Your task to perform on an android device: Go to Android settings Image 0: 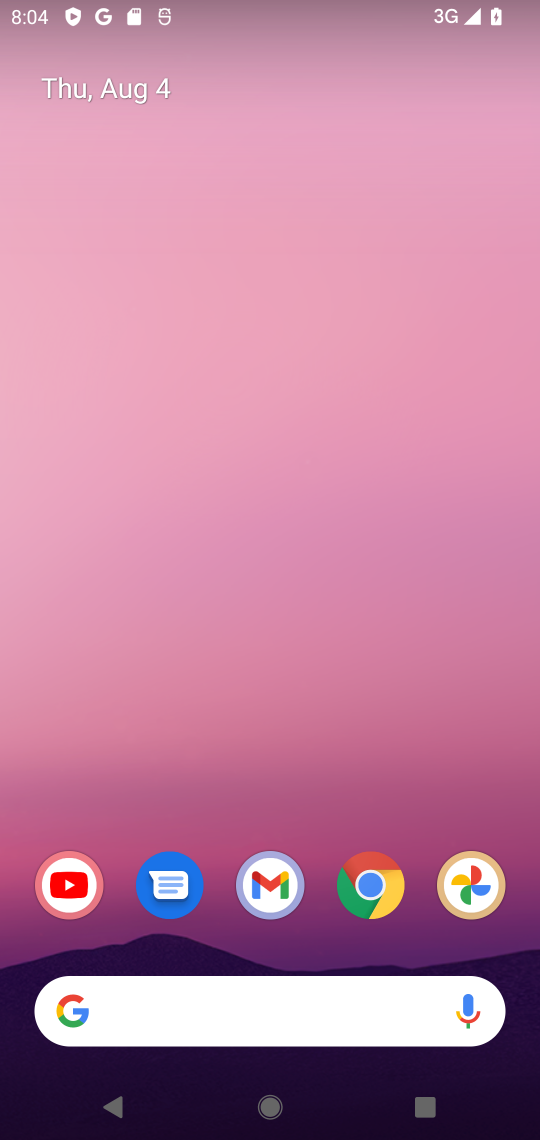
Step 0: press home button
Your task to perform on an android device: Go to Android settings Image 1: 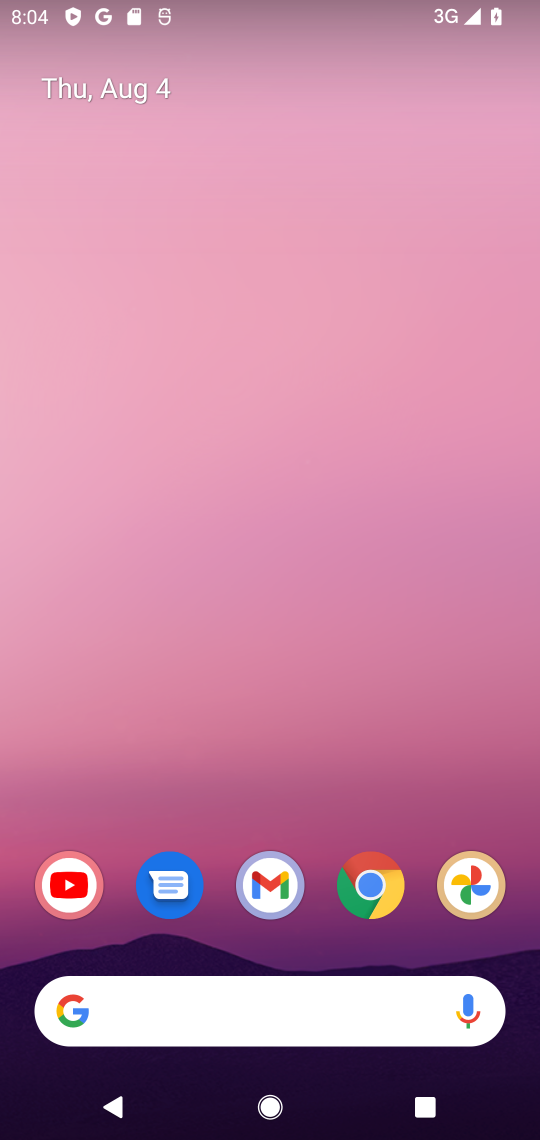
Step 1: drag from (320, 847) to (298, 5)
Your task to perform on an android device: Go to Android settings Image 2: 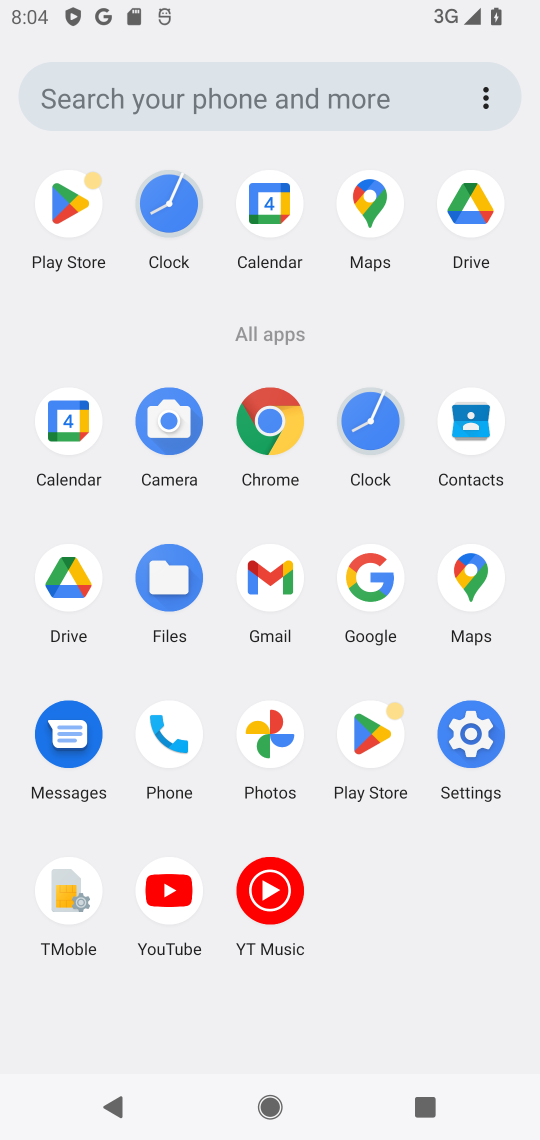
Step 2: click (470, 722)
Your task to perform on an android device: Go to Android settings Image 3: 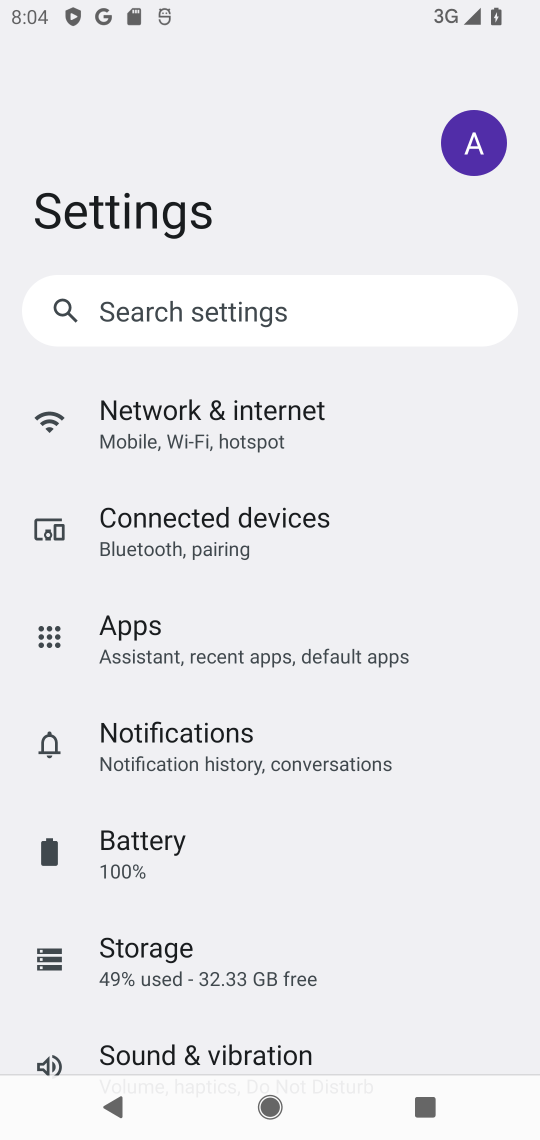
Step 3: drag from (346, 1011) to (342, 245)
Your task to perform on an android device: Go to Android settings Image 4: 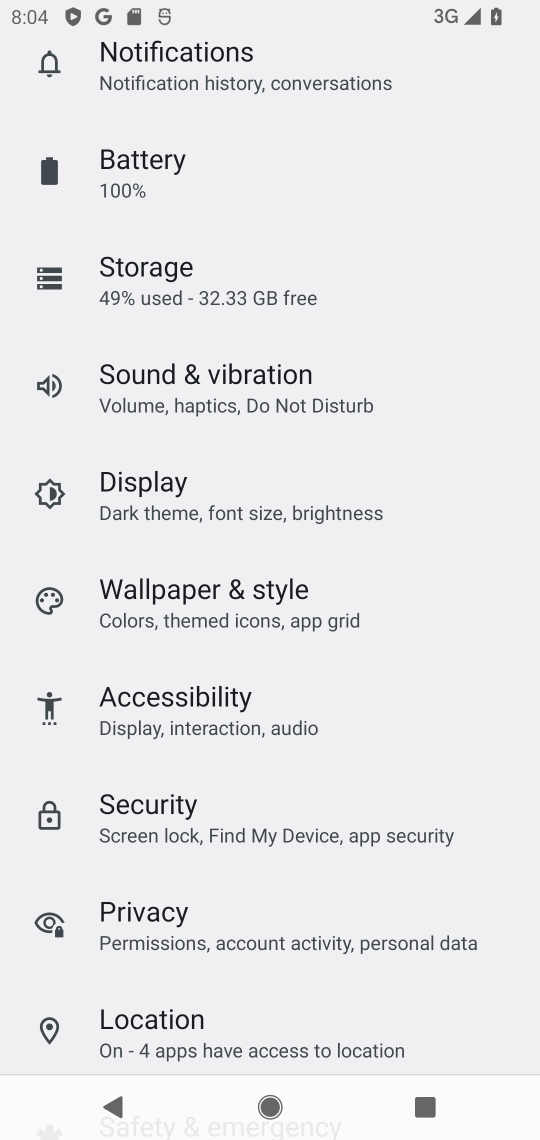
Step 4: drag from (283, 1010) to (254, 267)
Your task to perform on an android device: Go to Android settings Image 5: 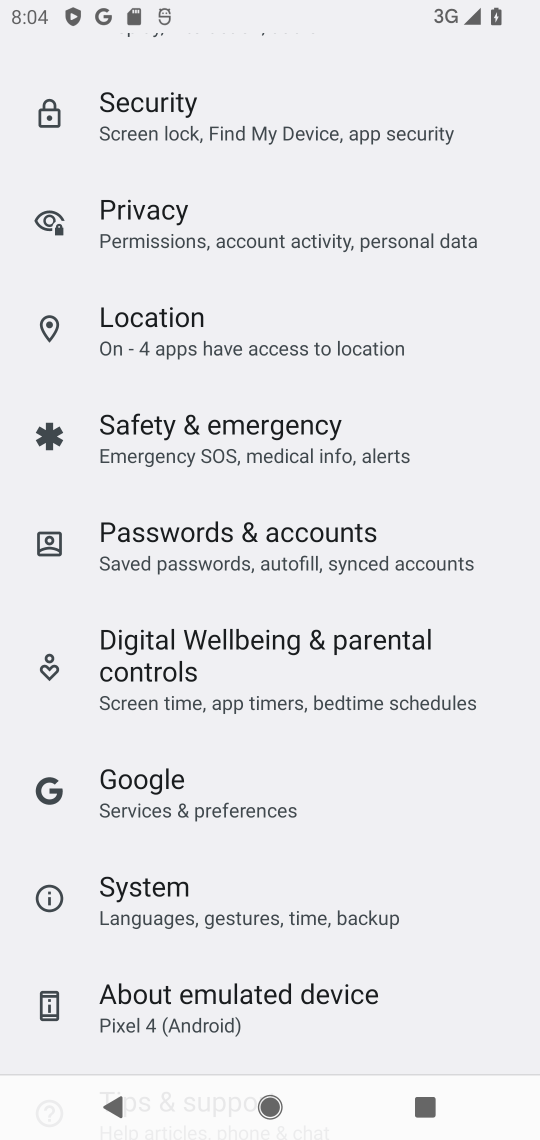
Step 5: click (282, 1011)
Your task to perform on an android device: Go to Android settings Image 6: 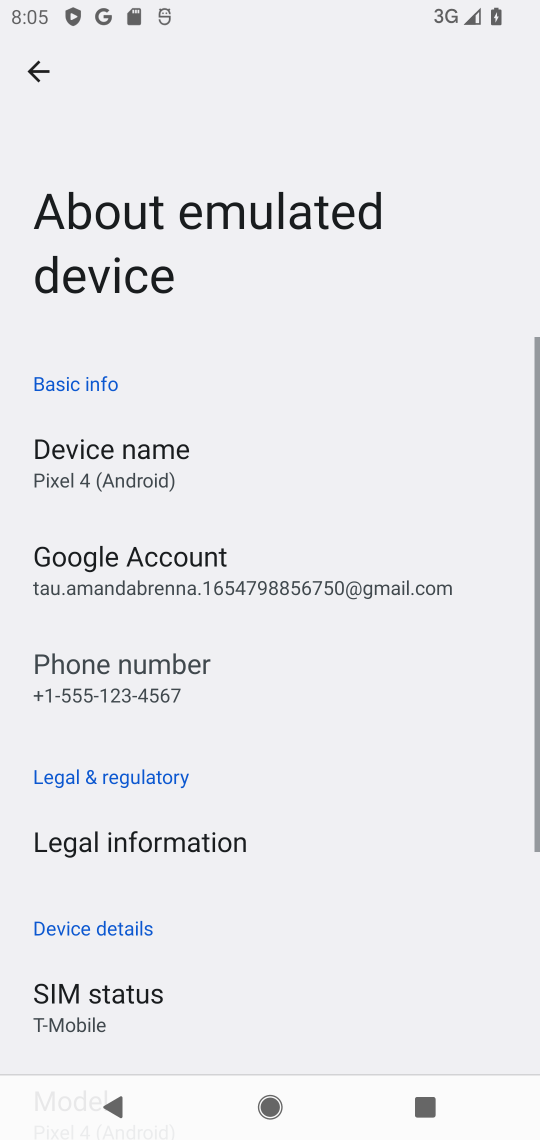
Step 6: drag from (238, 1016) to (272, 471)
Your task to perform on an android device: Go to Android settings Image 7: 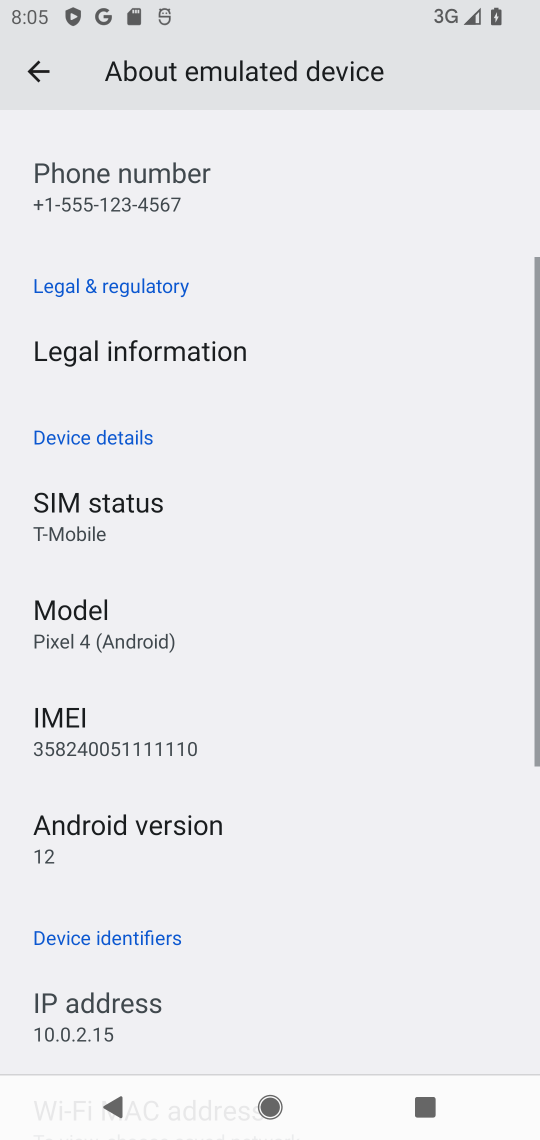
Step 7: click (145, 849)
Your task to perform on an android device: Go to Android settings Image 8: 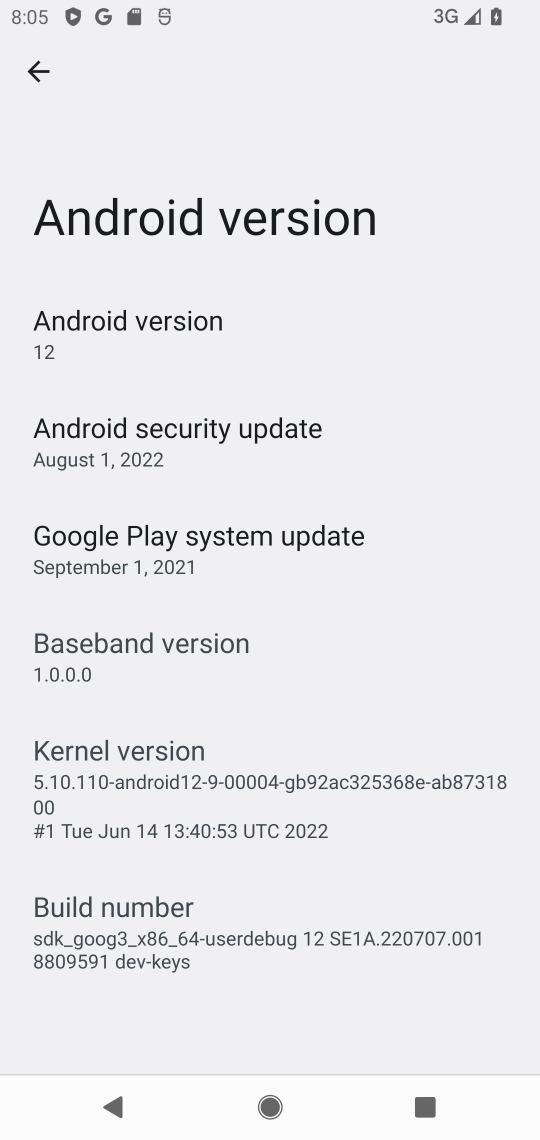
Step 8: task complete